Your task to perform on an android device: open app "Fetch Rewards" Image 0: 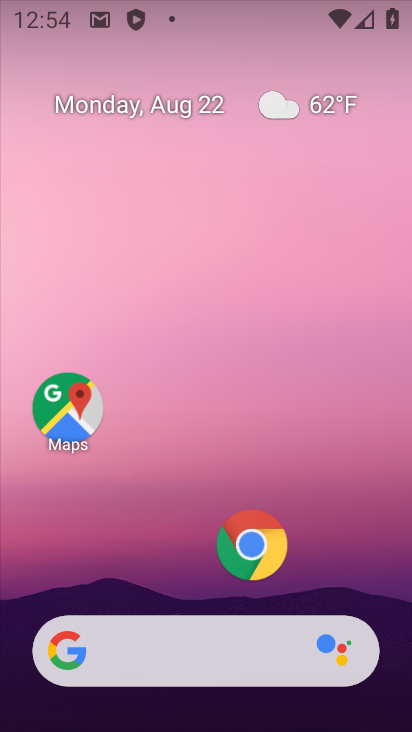
Step 0: drag from (132, 580) to (269, 13)
Your task to perform on an android device: open app "Fetch Rewards" Image 1: 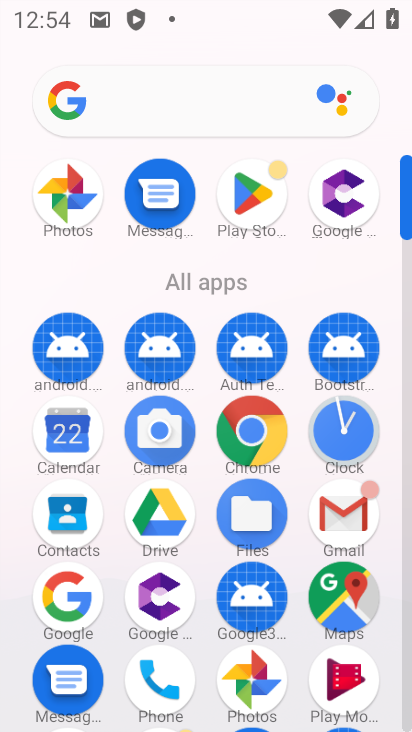
Step 1: click (266, 204)
Your task to perform on an android device: open app "Fetch Rewards" Image 2: 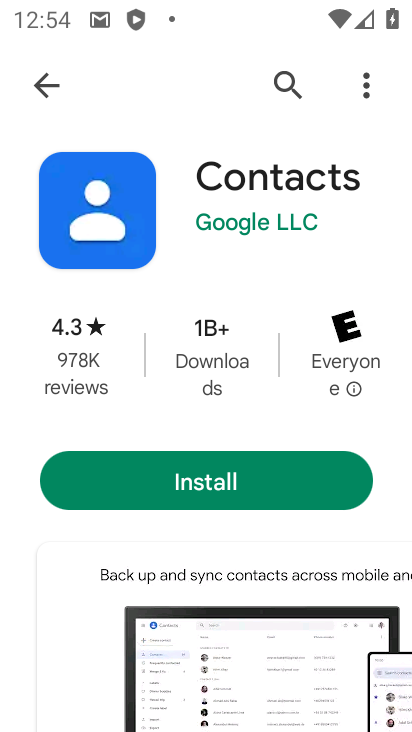
Step 2: click (298, 91)
Your task to perform on an android device: open app "Fetch Rewards" Image 3: 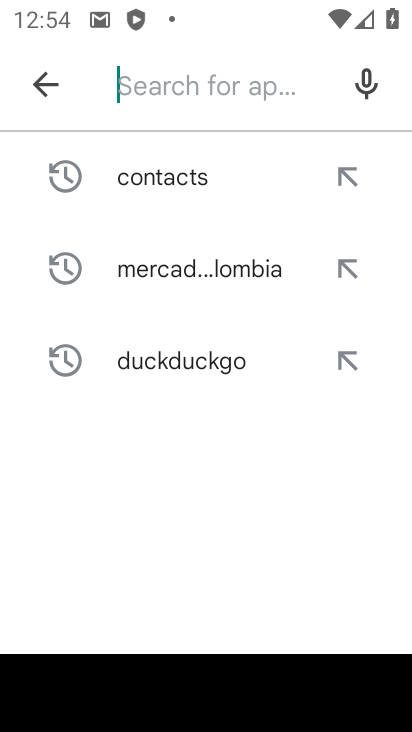
Step 3: click (231, 79)
Your task to perform on an android device: open app "Fetch Rewards" Image 4: 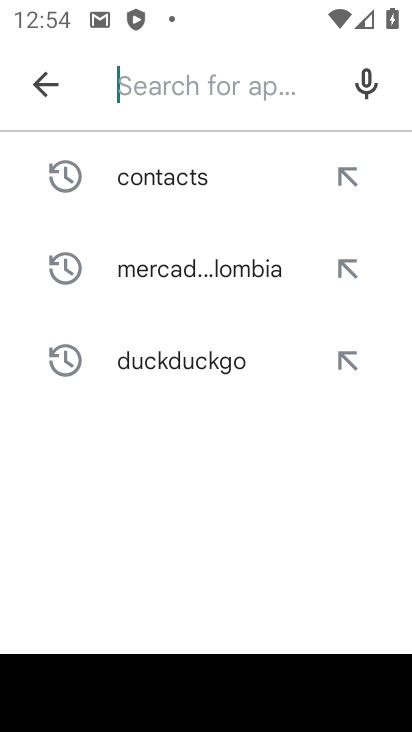
Step 4: type "fetchrewards"
Your task to perform on an android device: open app "Fetch Rewards" Image 5: 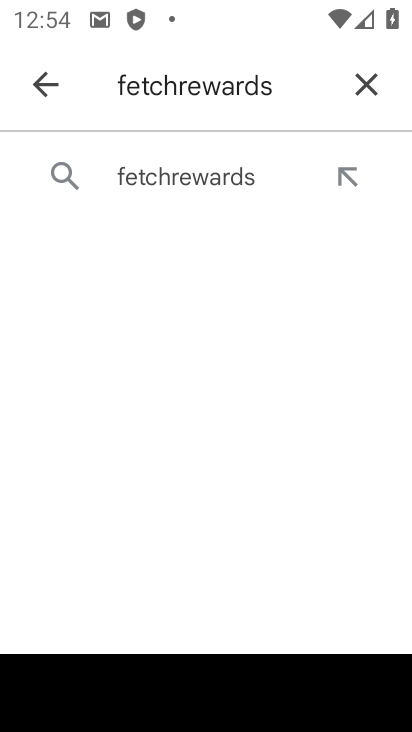
Step 5: click (191, 187)
Your task to perform on an android device: open app "Fetch Rewards" Image 6: 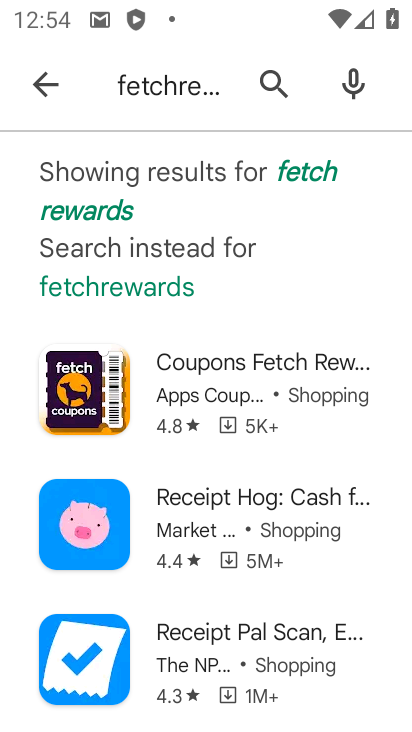
Step 6: task complete